Your task to perform on an android device: choose inbox layout in the gmail app Image 0: 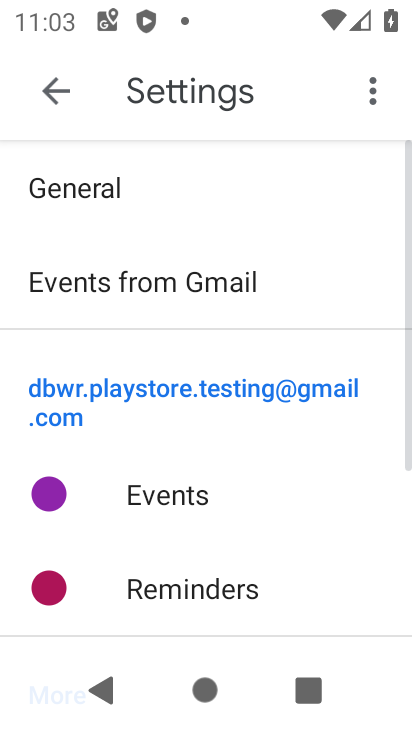
Step 0: press home button
Your task to perform on an android device: choose inbox layout in the gmail app Image 1: 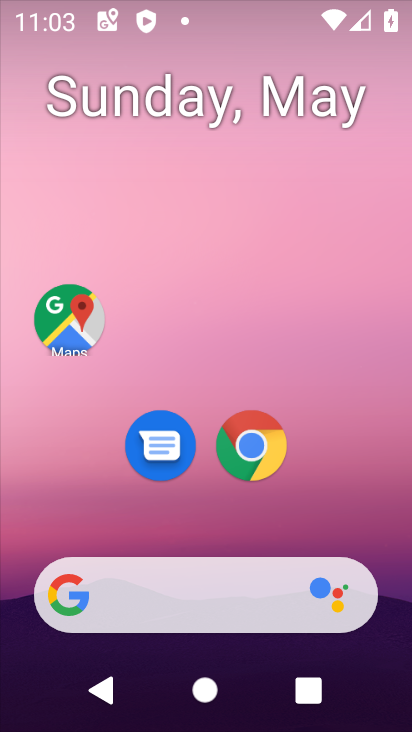
Step 1: drag from (353, 517) to (163, 33)
Your task to perform on an android device: choose inbox layout in the gmail app Image 2: 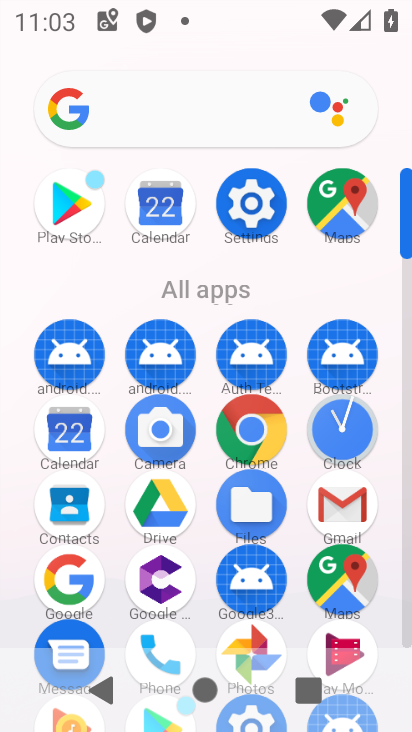
Step 2: click (348, 500)
Your task to perform on an android device: choose inbox layout in the gmail app Image 3: 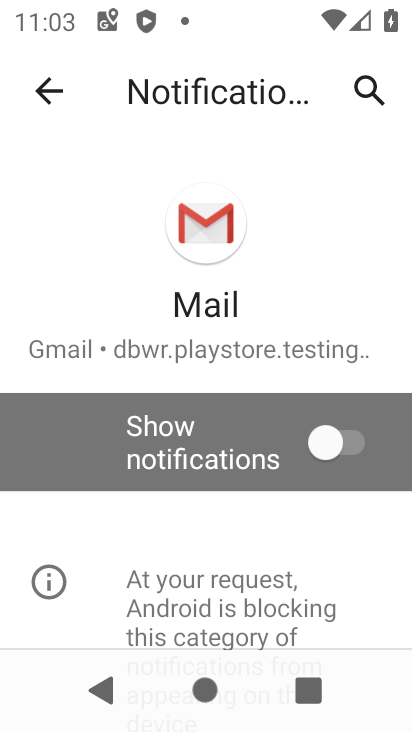
Step 3: click (43, 80)
Your task to perform on an android device: choose inbox layout in the gmail app Image 4: 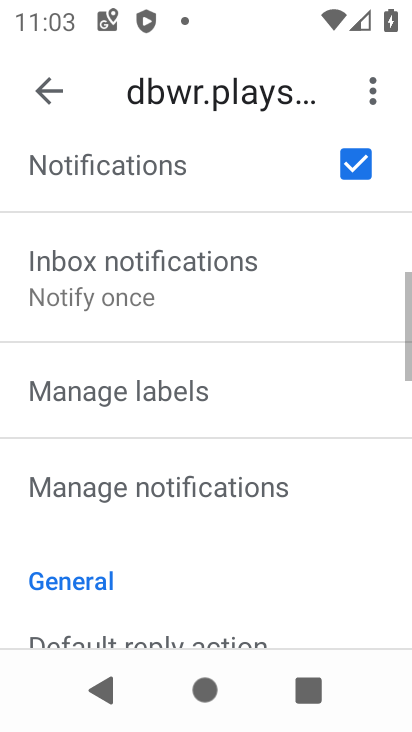
Step 4: drag from (192, 201) to (229, 704)
Your task to perform on an android device: choose inbox layout in the gmail app Image 5: 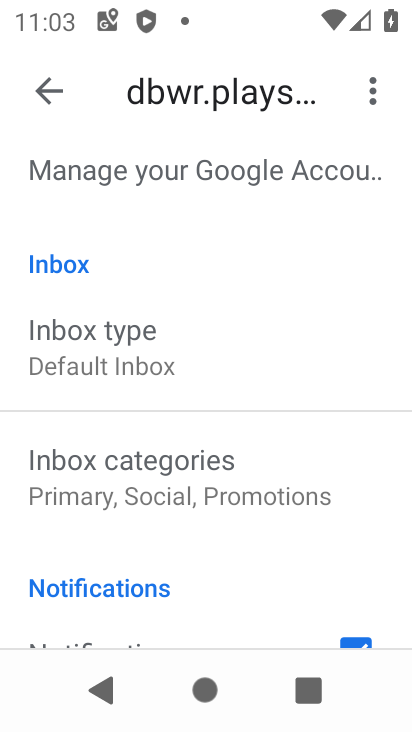
Step 5: click (148, 359)
Your task to perform on an android device: choose inbox layout in the gmail app Image 6: 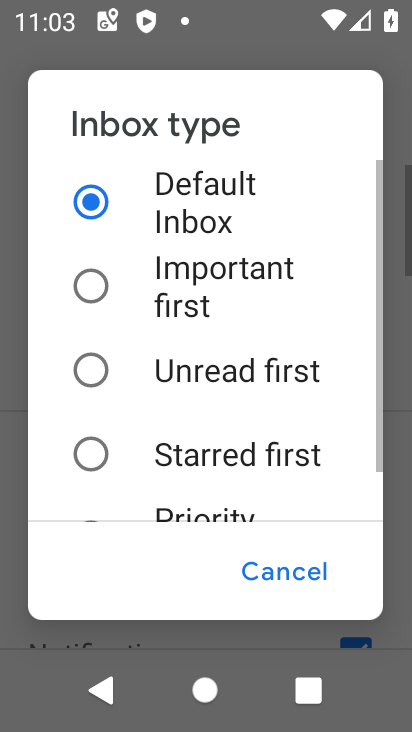
Step 6: click (187, 267)
Your task to perform on an android device: choose inbox layout in the gmail app Image 7: 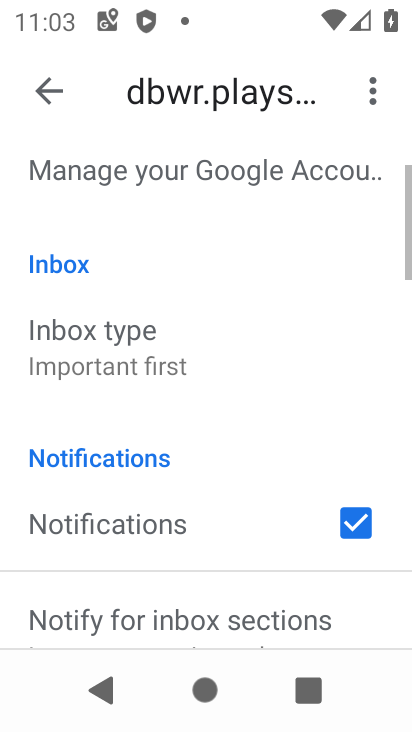
Step 7: task complete